Your task to perform on an android device: Toggle the flashlight Image 0: 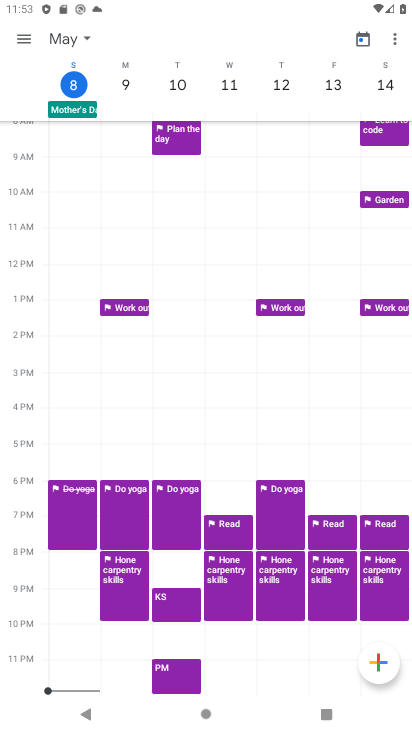
Step 0: press home button
Your task to perform on an android device: Toggle the flashlight Image 1: 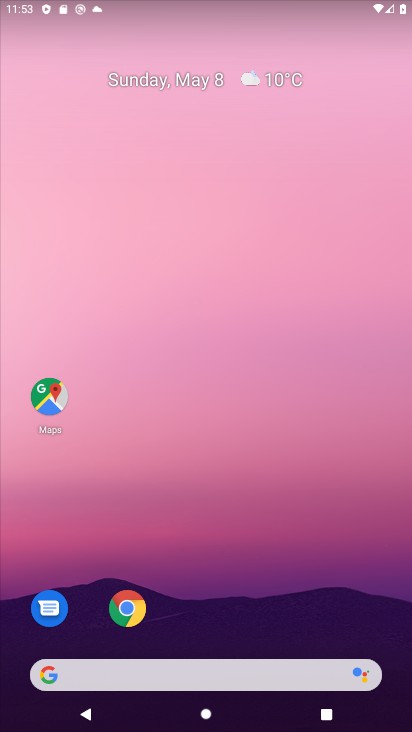
Step 1: drag from (221, 570) to (194, 393)
Your task to perform on an android device: Toggle the flashlight Image 2: 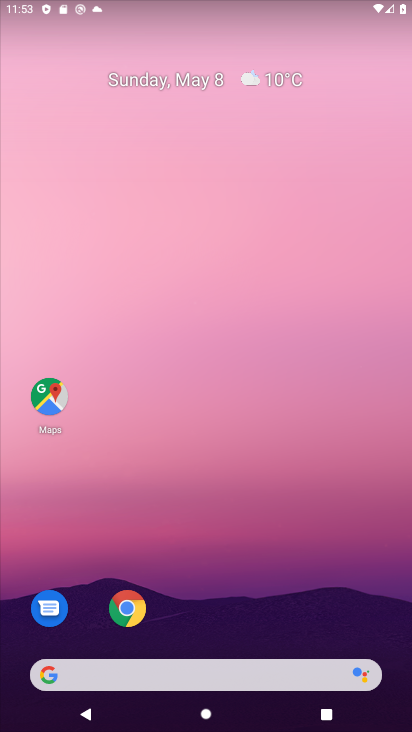
Step 2: drag from (190, 635) to (184, 118)
Your task to perform on an android device: Toggle the flashlight Image 3: 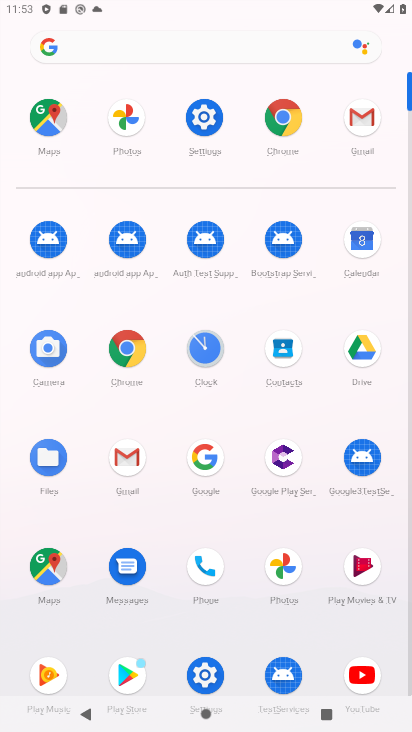
Step 3: click (203, 148)
Your task to perform on an android device: Toggle the flashlight Image 4: 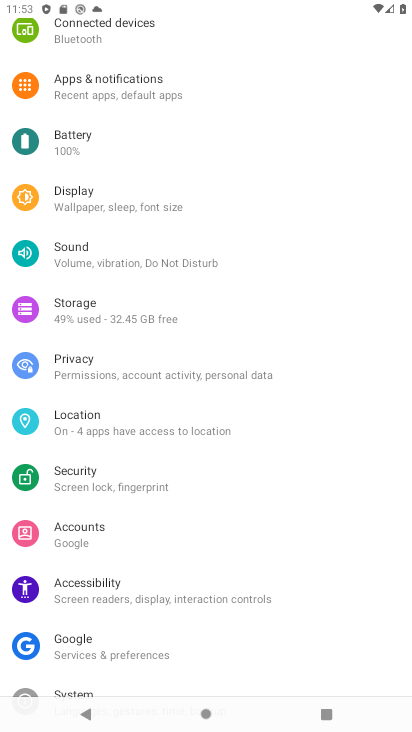
Step 4: task complete